Your task to perform on an android device: all mails in gmail Image 0: 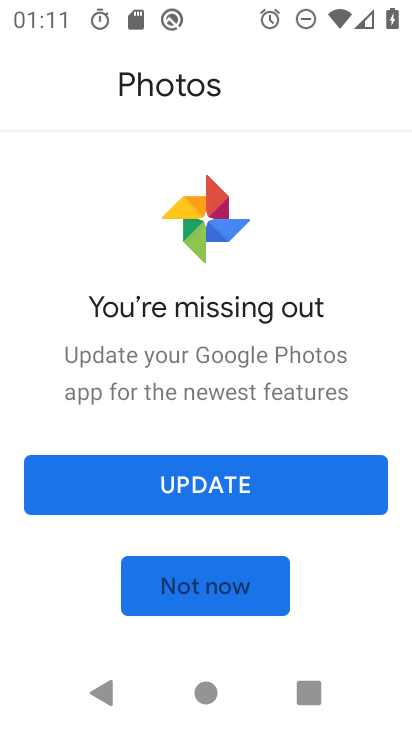
Step 0: press home button
Your task to perform on an android device: all mails in gmail Image 1: 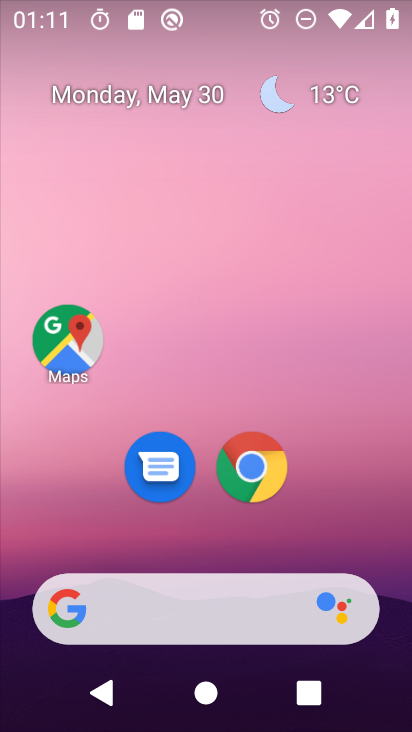
Step 1: drag from (212, 539) to (186, 189)
Your task to perform on an android device: all mails in gmail Image 2: 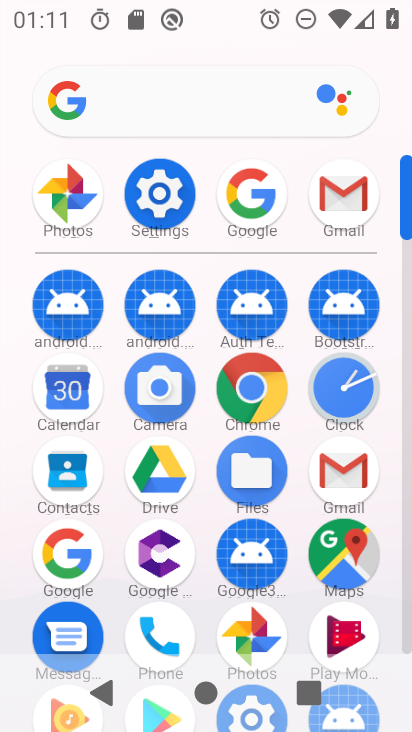
Step 2: click (330, 194)
Your task to perform on an android device: all mails in gmail Image 3: 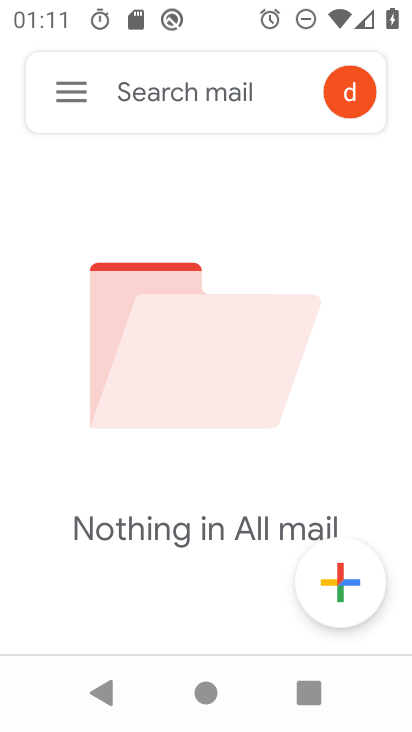
Step 3: click (67, 100)
Your task to perform on an android device: all mails in gmail Image 4: 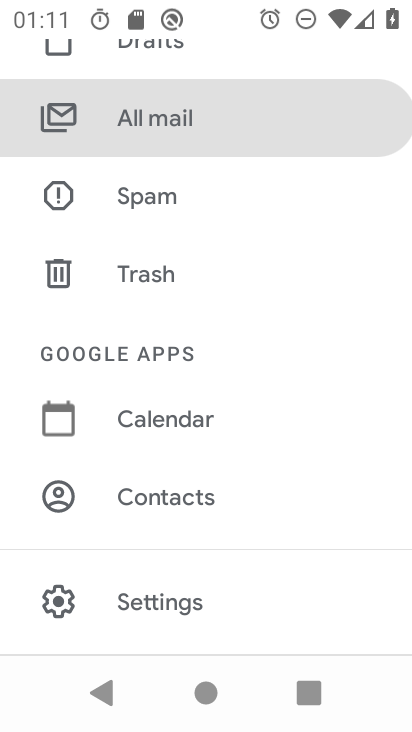
Step 4: click (177, 125)
Your task to perform on an android device: all mails in gmail Image 5: 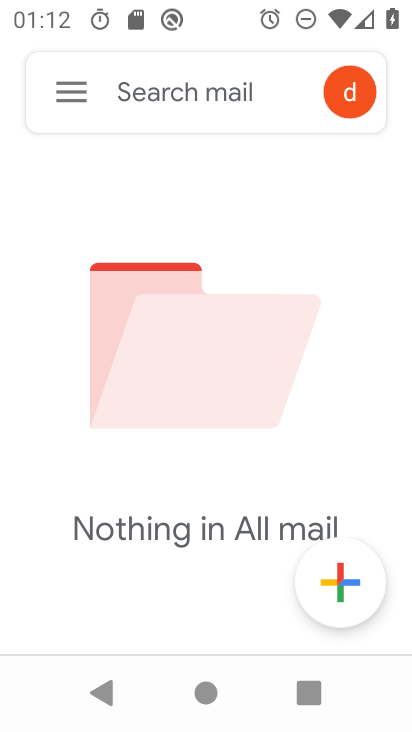
Step 5: task complete